Your task to perform on an android device: search for starred emails in the gmail app Image 0: 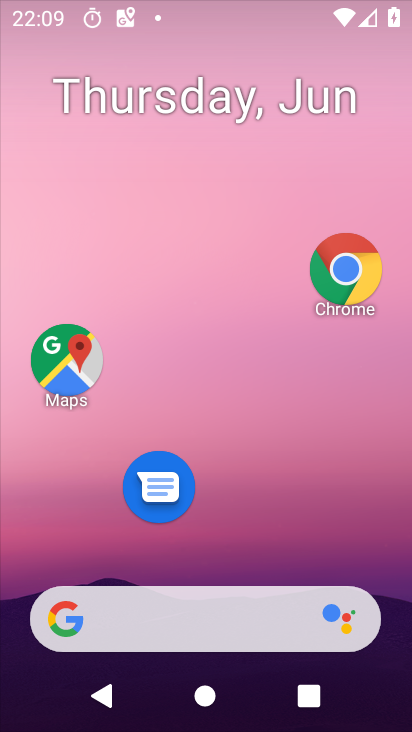
Step 0: drag from (173, 588) to (101, 28)
Your task to perform on an android device: search for starred emails in the gmail app Image 1: 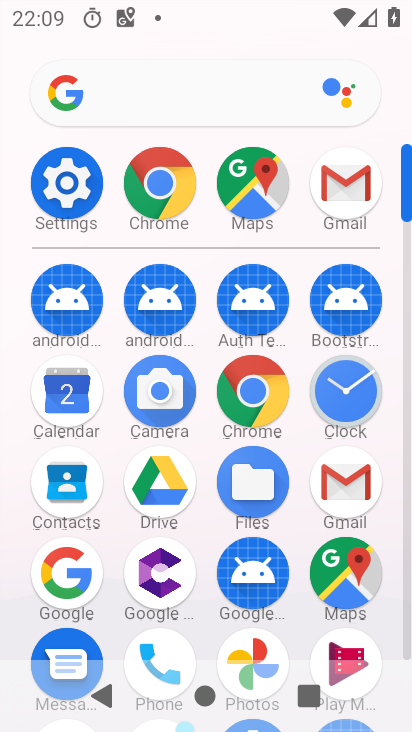
Step 1: click (336, 467)
Your task to perform on an android device: search for starred emails in the gmail app Image 2: 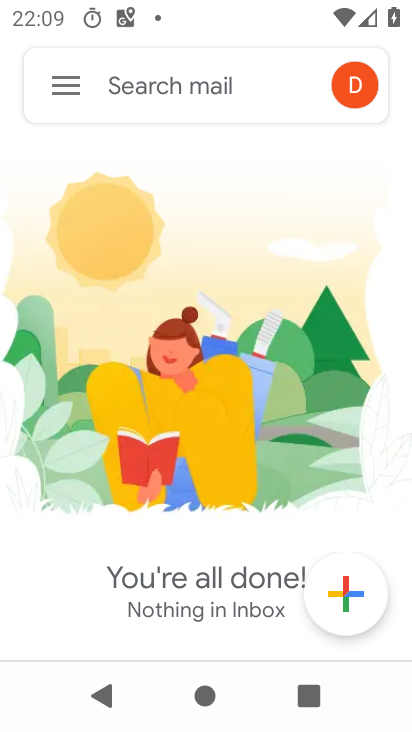
Step 2: click (64, 109)
Your task to perform on an android device: search for starred emails in the gmail app Image 3: 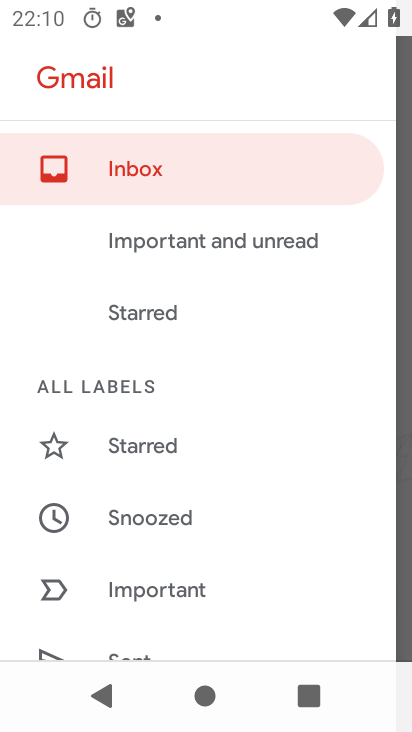
Step 3: click (175, 448)
Your task to perform on an android device: search for starred emails in the gmail app Image 4: 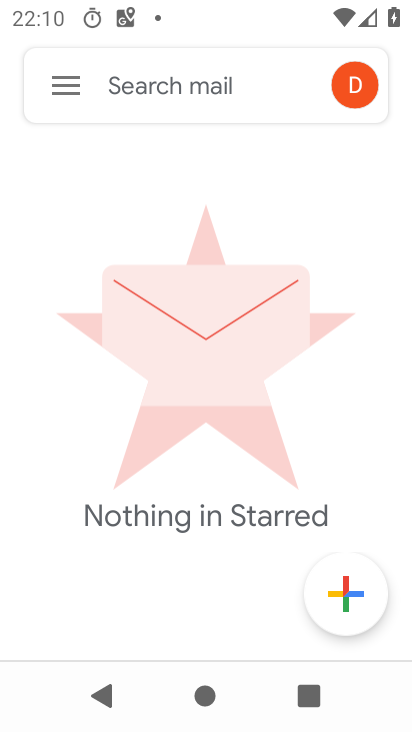
Step 4: task complete